Your task to perform on an android device: set the timer Image 0: 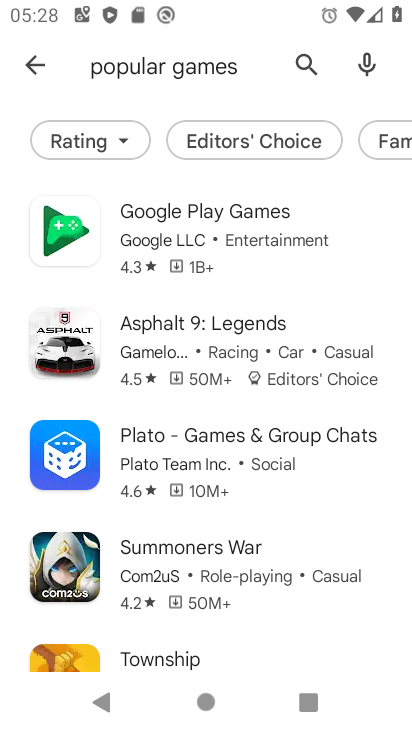
Step 0: press home button
Your task to perform on an android device: set the timer Image 1: 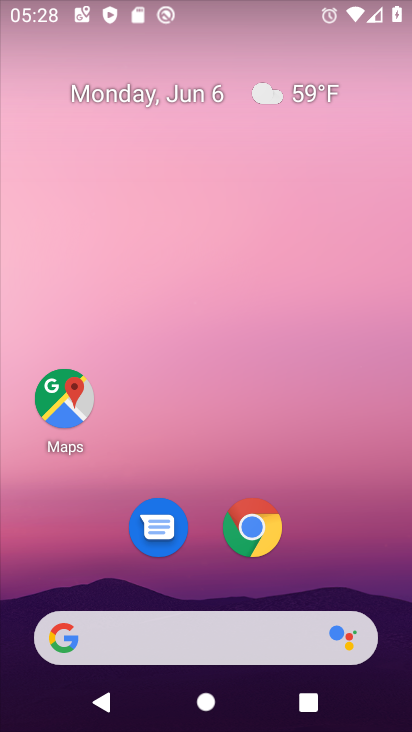
Step 1: drag from (403, 699) to (396, 125)
Your task to perform on an android device: set the timer Image 2: 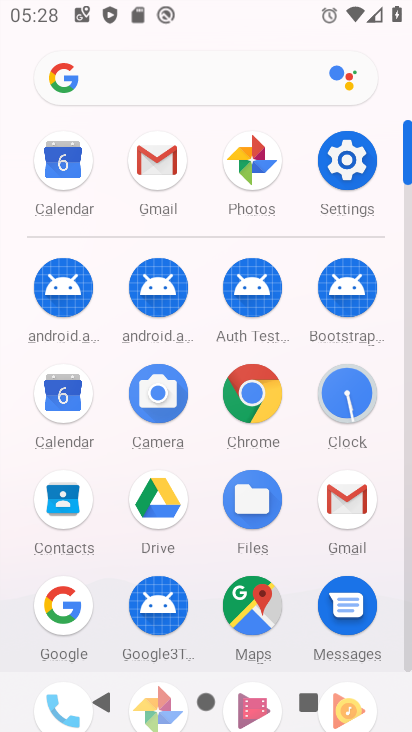
Step 2: click (350, 391)
Your task to perform on an android device: set the timer Image 3: 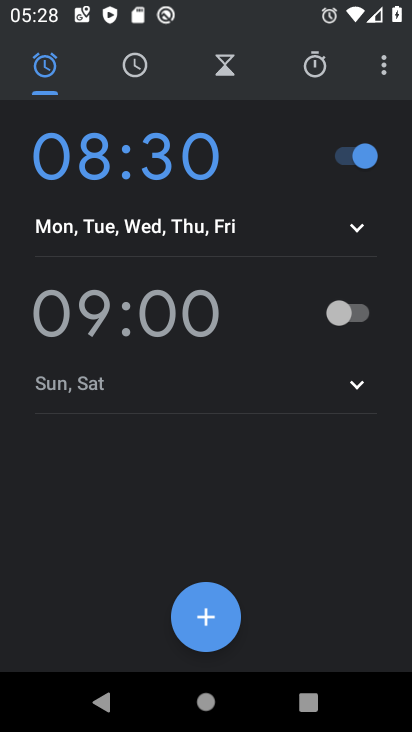
Step 3: click (230, 69)
Your task to perform on an android device: set the timer Image 4: 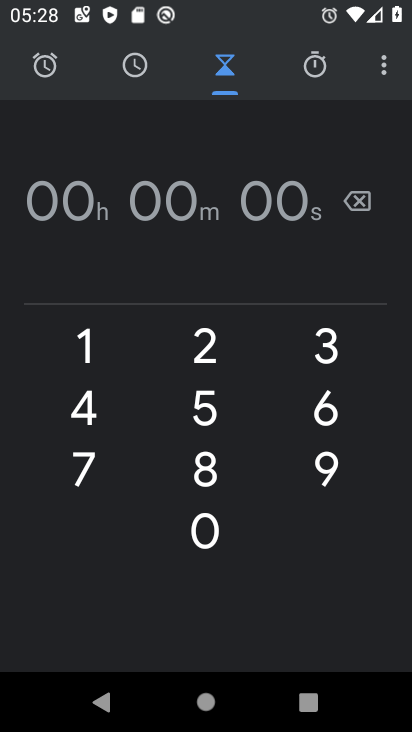
Step 4: click (200, 413)
Your task to perform on an android device: set the timer Image 5: 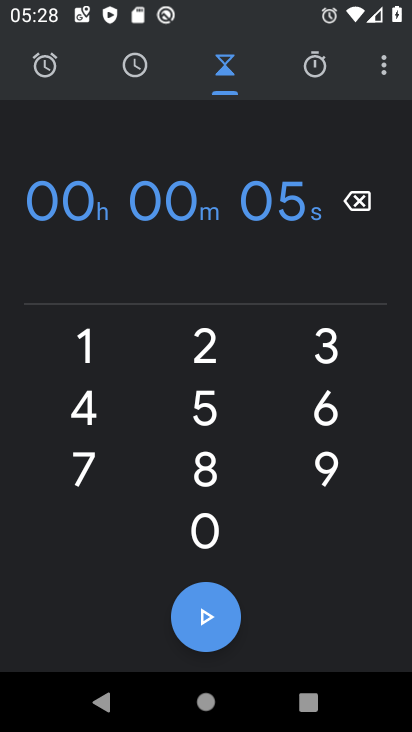
Step 5: click (200, 413)
Your task to perform on an android device: set the timer Image 6: 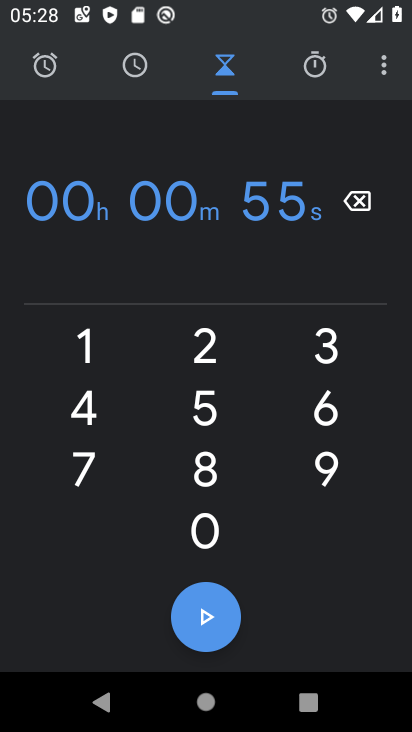
Step 6: click (178, 621)
Your task to perform on an android device: set the timer Image 7: 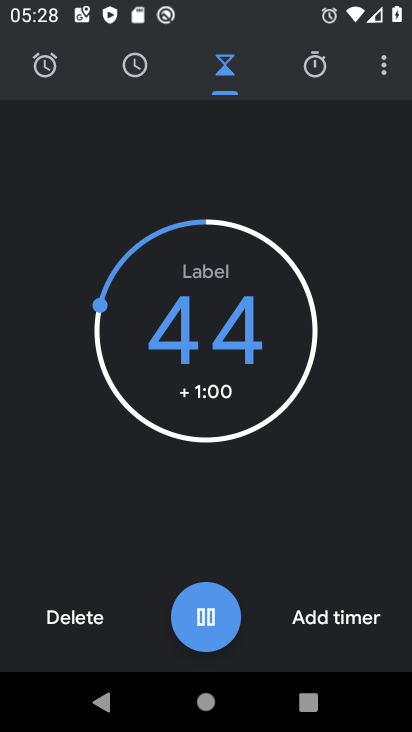
Step 7: task complete